Your task to perform on an android device: set the stopwatch Image 0: 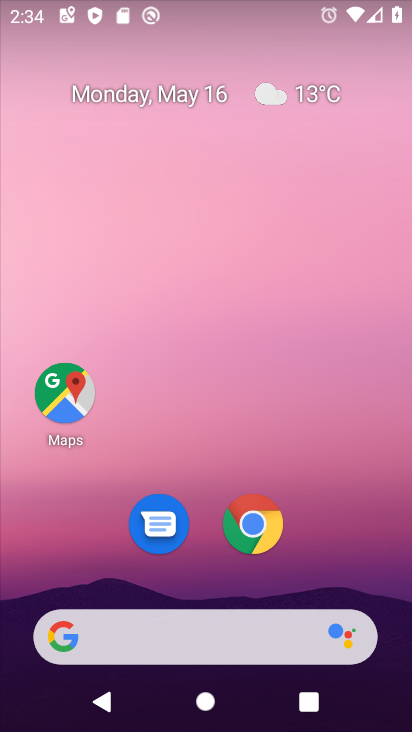
Step 0: drag from (300, 491) to (278, 60)
Your task to perform on an android device: set the stopwatch Image 1: 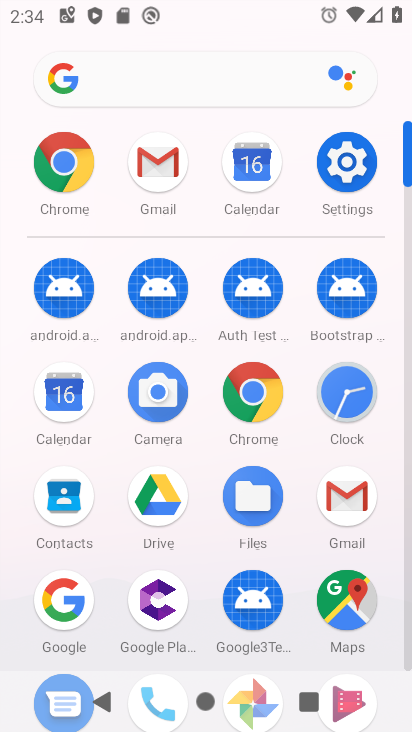
Step 1: click (328, 385)
Your task to perform on an android device: set the stopwatch Image 2: 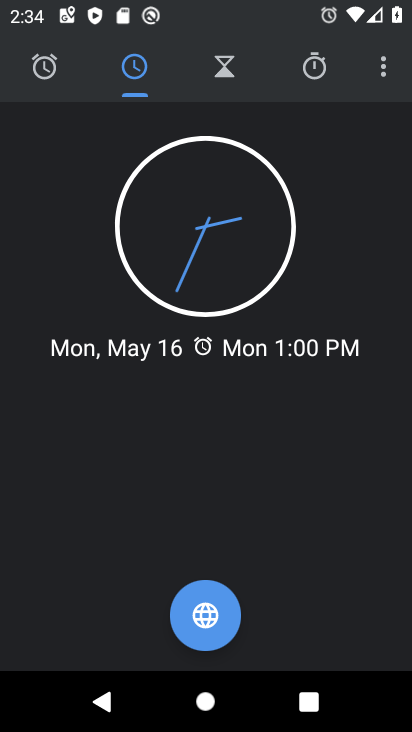
Step 2: click (319, 62)
Your task to perform on an android device: set the stopwatch Image 3: 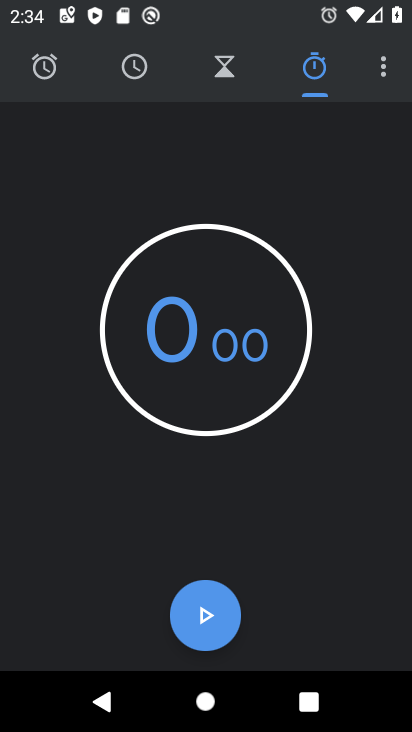
Step 3: click (177, 300)
Your task to perform on an android device: set the stopwatch Image 4: 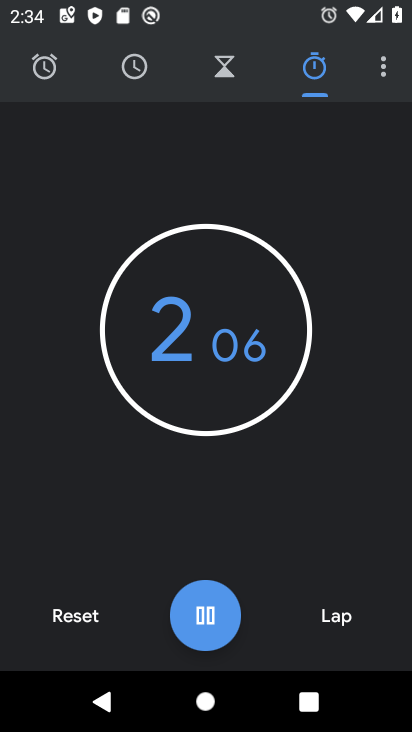
Step 4: click (212, 607)
Your task to perform on an android device: set the stopwatch Image 5: 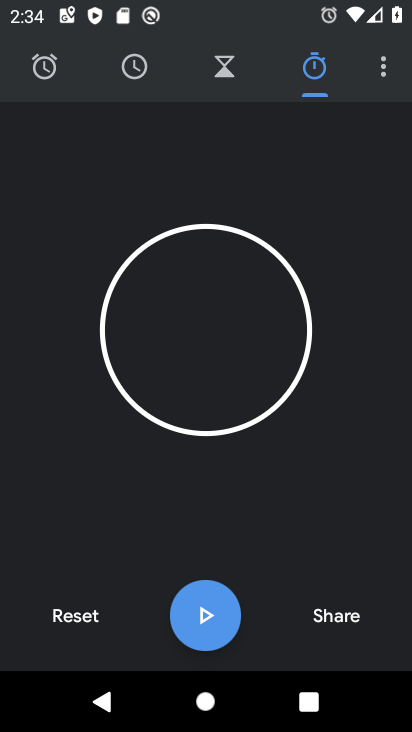
Step 5: task complete